Your task to perform on an android device: Open display settings Image 0: 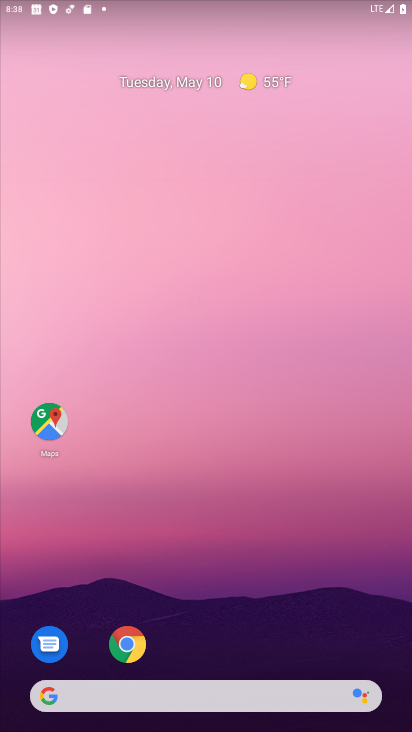
Step 0: drag from (190, 568) to (270, 192)
Your task to perform on an android device: Open display settings Image 1: 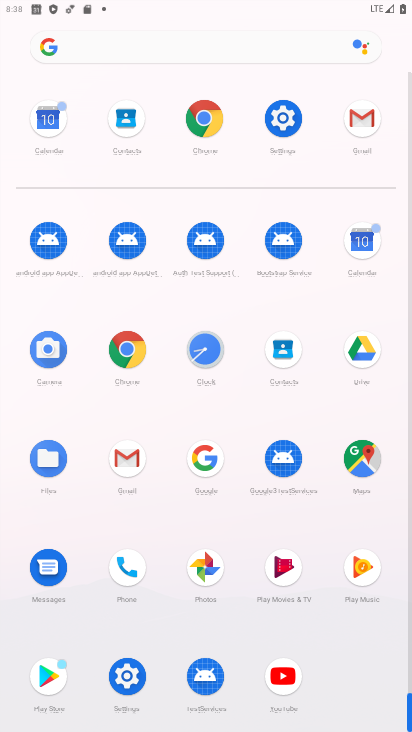
Step 1: click (282, 132)
Your task to perform on an android device: Open display settings Image 2: 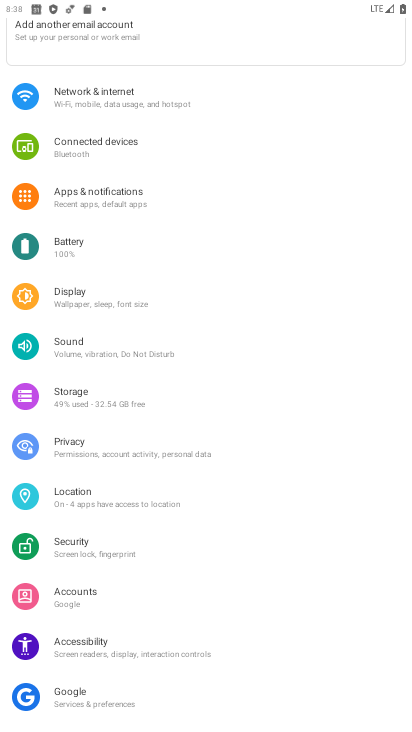
Step 2: click (115, 295)
Your task to perform on an android device: Open display settings Image 3: 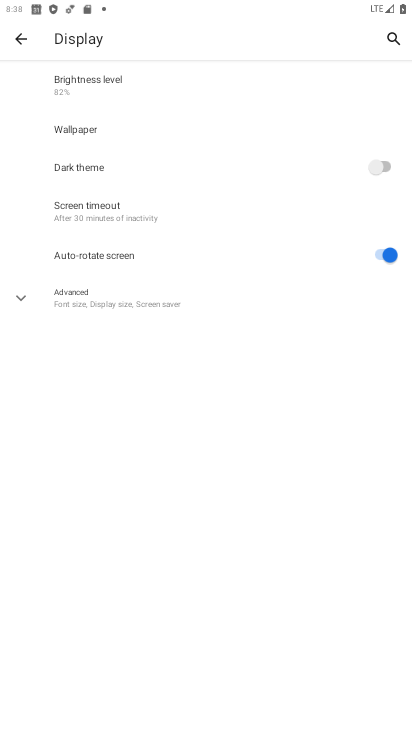
Step 3: task complete